Your task to perform on an android device: When is my next meeting? Image 0: 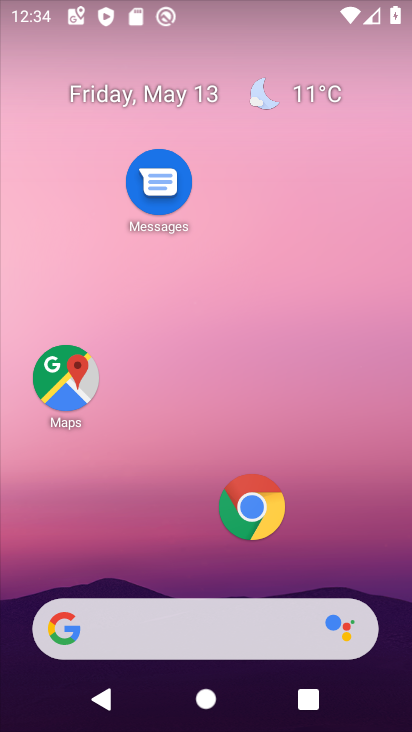
Step 0: drag from (201, 584) to (380, 472)
Your task to perform on an android device: When is my next meeting? Image 1: 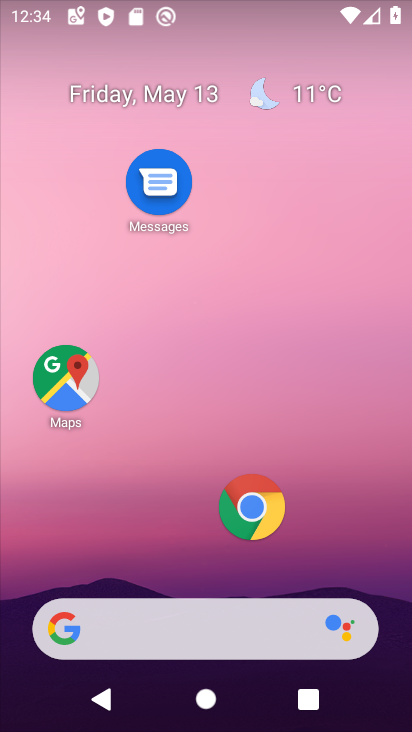
Step 1: drag from (163, 589) to (77, 87)
Your task to perform on an android device: When is my next meeting? Image 2: 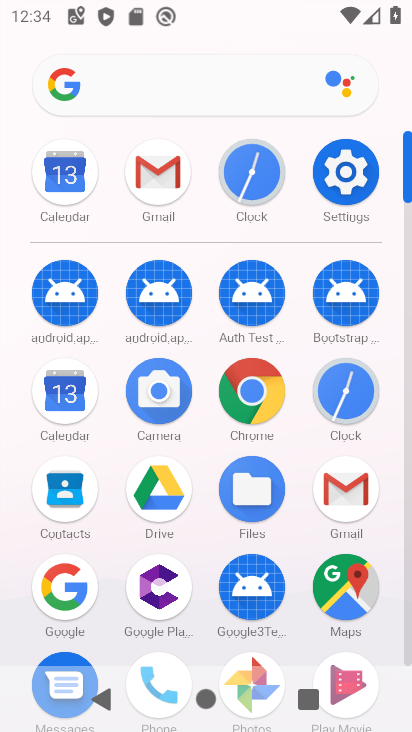
Step 2: click (91, 388)
Your task to perform on an android device: When is my next meeting? Image 3: 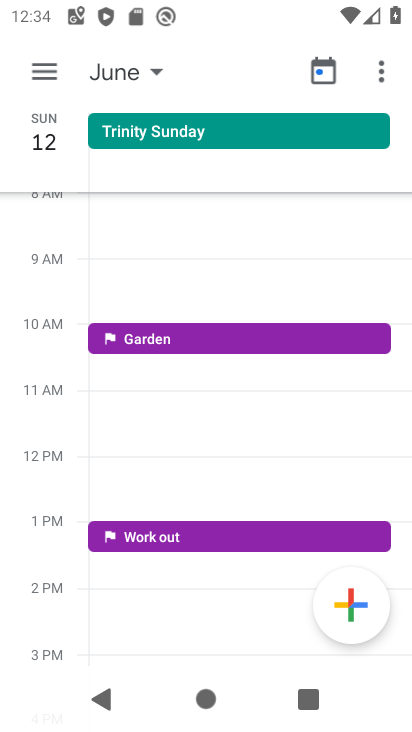
Step 3: click (43, 69)
Your task to perform on an android device: When is my next meeting? Image 4: 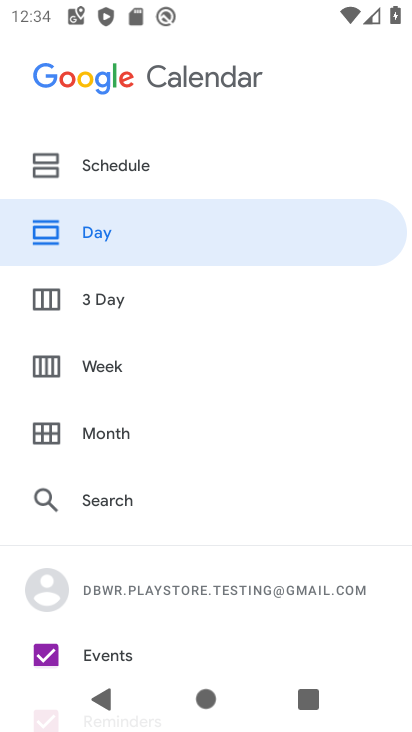
Step 4: drag from (150, 564) to (140, 141)
Your task to perform on an android device: When is my next meeting? Image 5: 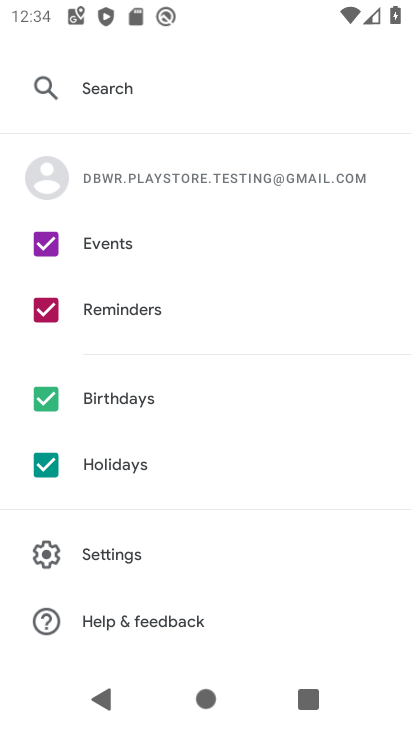
Step 5: drag from (270, 221) to (161, 720)
Your task to perform on an android device: When is my next meeting? Image 6: 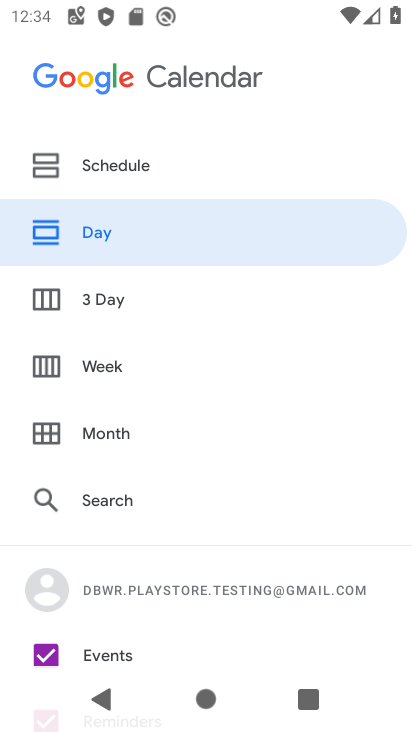
Step 6: click (108, 366)
Your task to perform on an android device: When is my next meeting? Image 7: 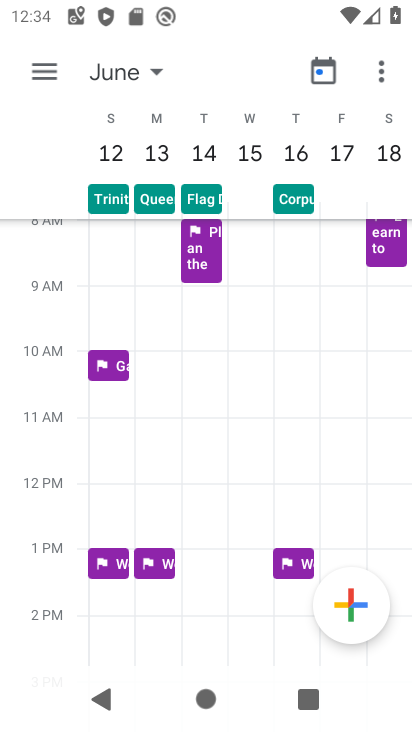
Step 7: task complete